Your task to perform on an android device: Open wifi settings Image 0: 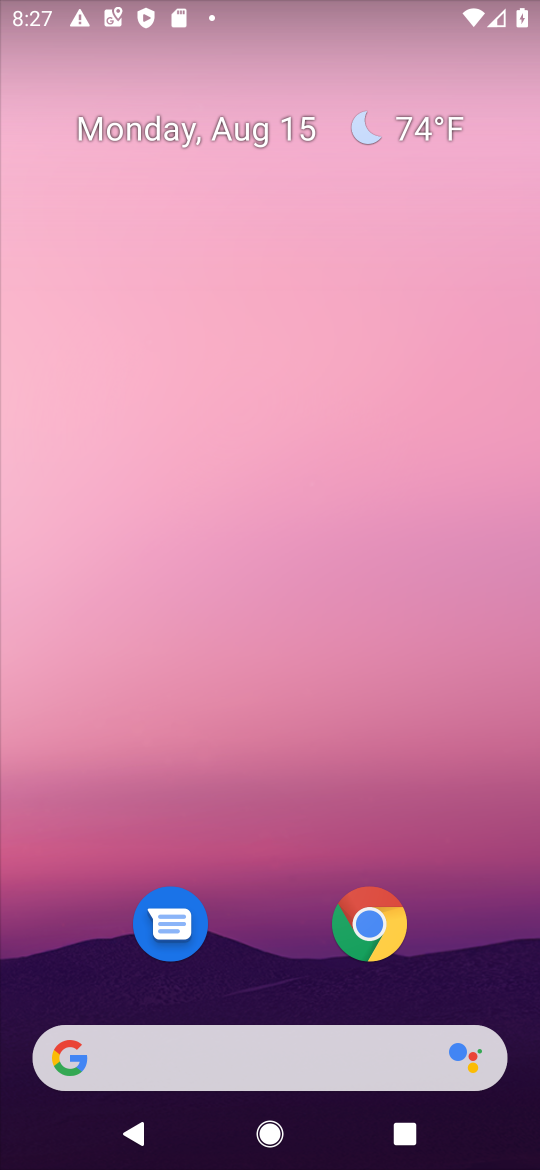
Step 0: drag from (468, 578) to (446, 187)
Your task to perform on an android device: Open wifi settings Image 1: 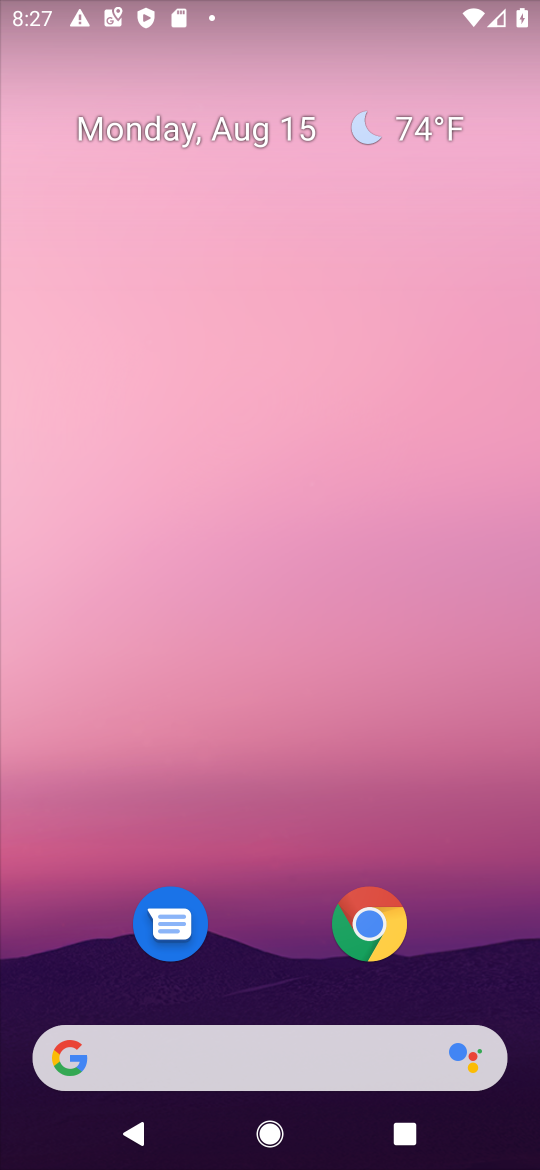
Step 1: drag from (500, 970) to (440, 288)
Your task to perform on an android device: Open wifi settings Image 2: 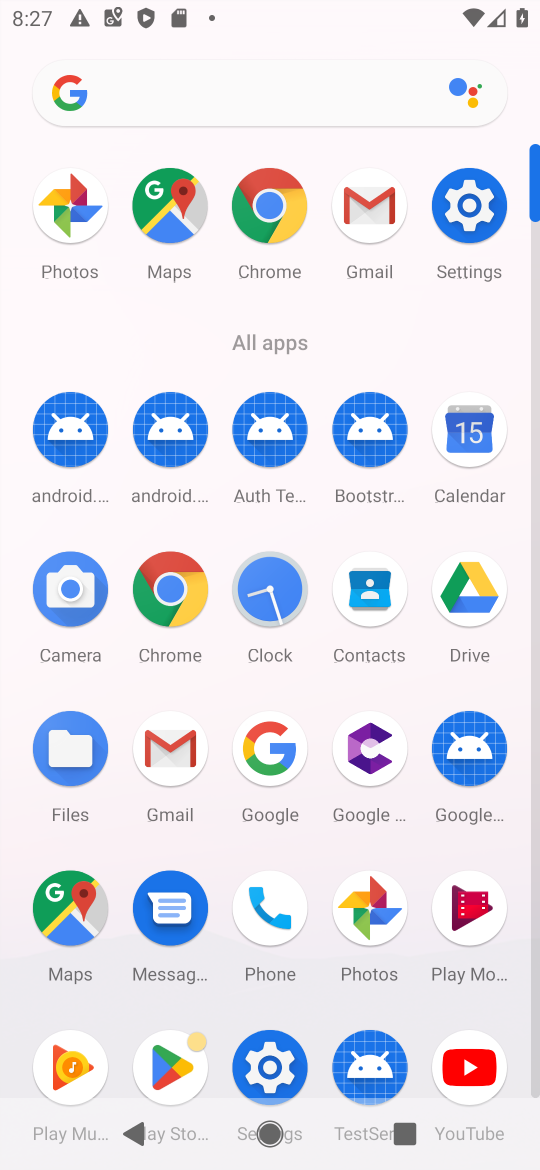
Step 2: click (270, 1068)
Your task to perform on an android device: Open wifi settings Image 3: 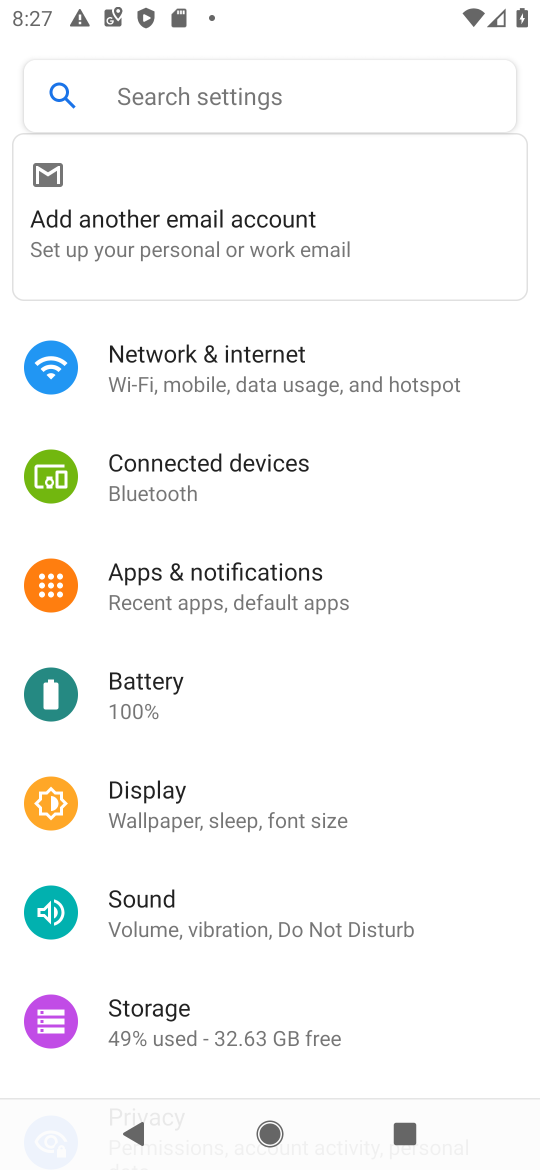
Step 3: click (168, 364)
Your task to perform on an android device: Open wifi settings Image 4: 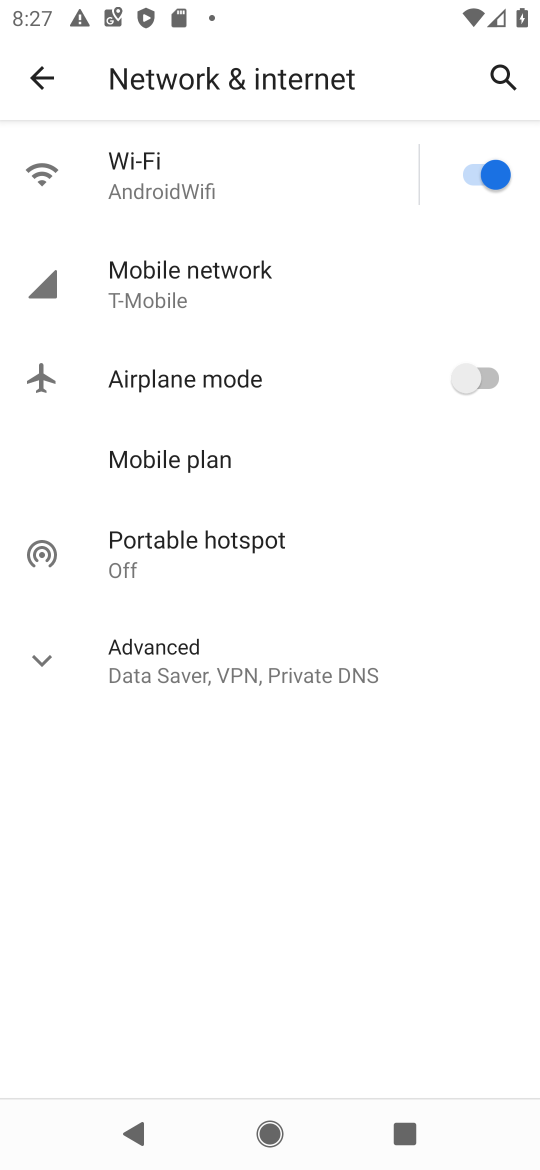
Step 4: click (135, 178)
Your task to perform on an android device: Open wifi settings Image 5: 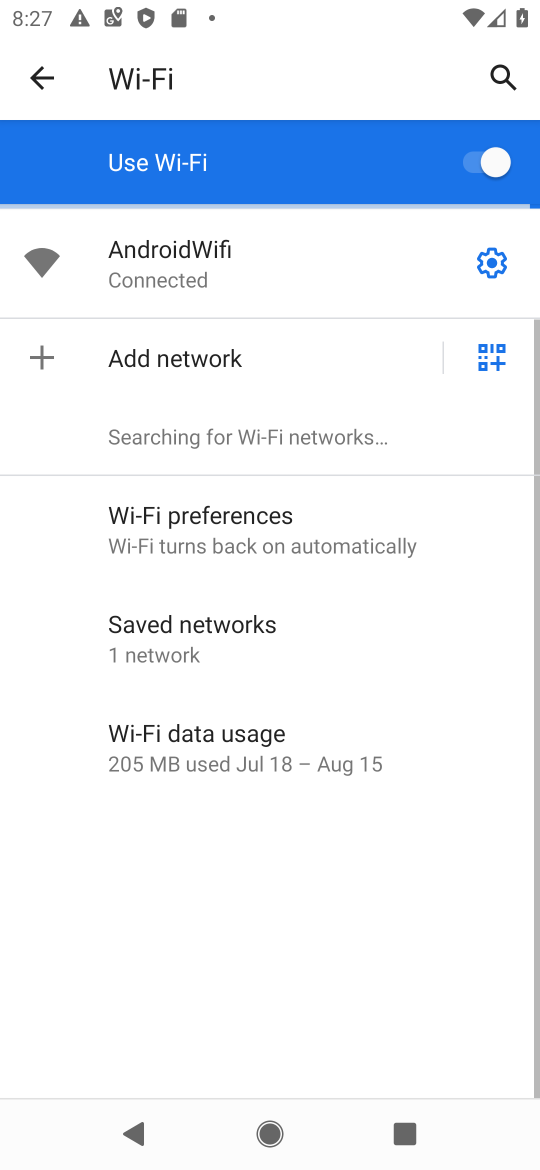
Step 5: click (491, 262)
Your task to perform on an android device: Open wifi settings Image 6: 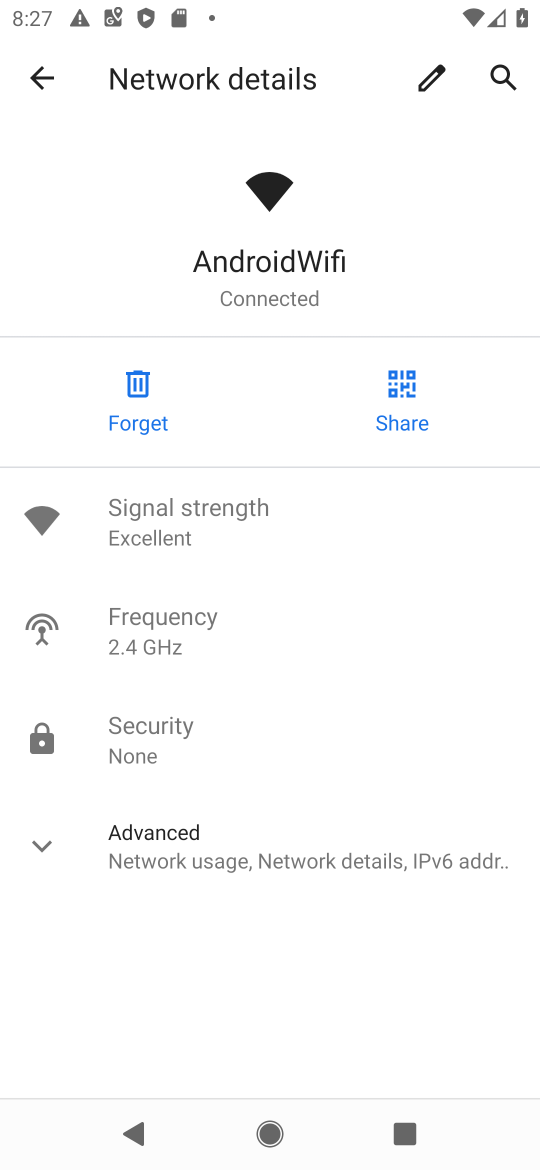
Step 6: click (41, 836)
Your task to perform on an android device: Open wifi settings Image 7: 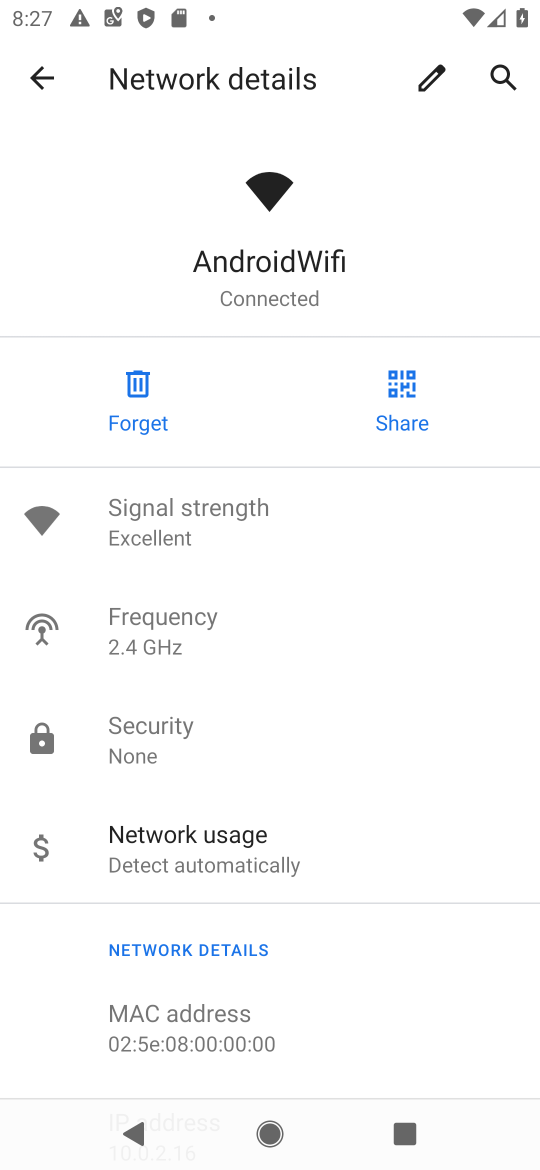
Step 7: task complete